Your task to perform on an android device: Open the calendar and show me this week's events? Image 0: 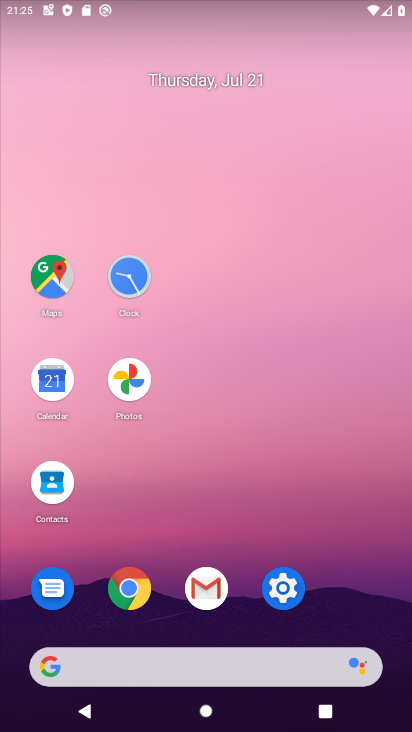
Step 0: click (49, 382)
Your task to perform on an android device: Open the calendar and show me this week's events? Image 1: 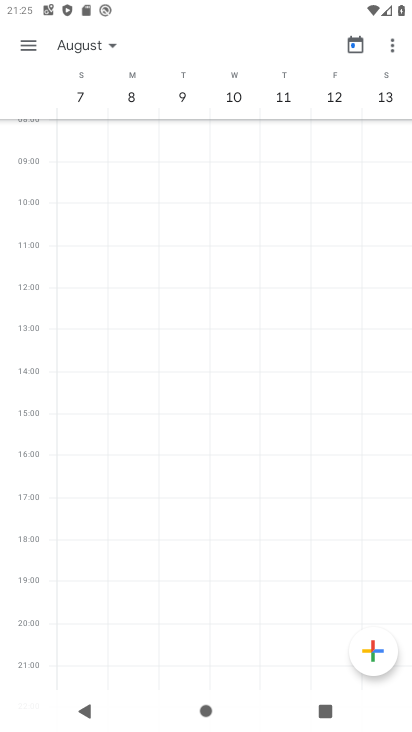
Step 1: click (25, 41)
Your task to perform on an android device: Open the calendar and show me this week's events? Image 2: 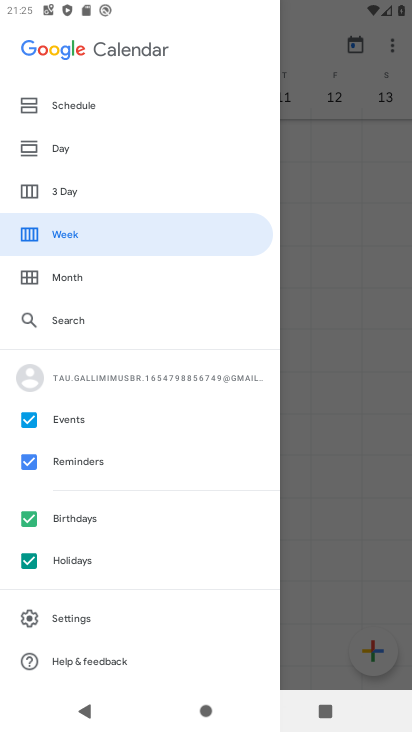
Step 2: click (76, 243)
Your task to perform on an android device: Open the calendar and show me this week's events? Image 3: 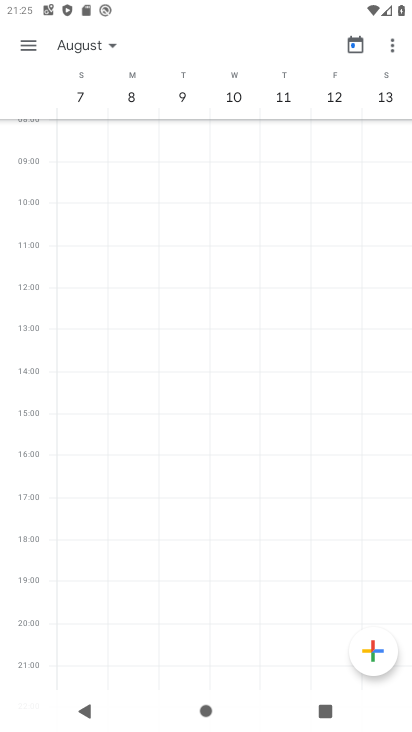
Step 3: click (112, 42)
Your task to perform on an android device: Open the calendar and show me this week's events? Image 4: 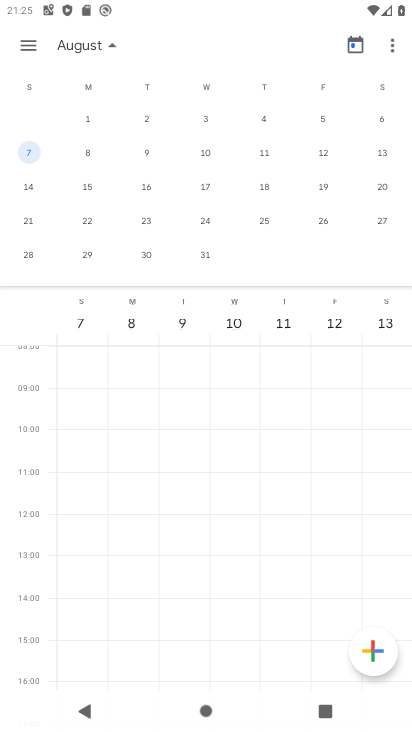
Step 4: drag from (37, 189) to (405, 171)
Your task to perform on an android device: Open the calendar and show me this week's events? Image 5: 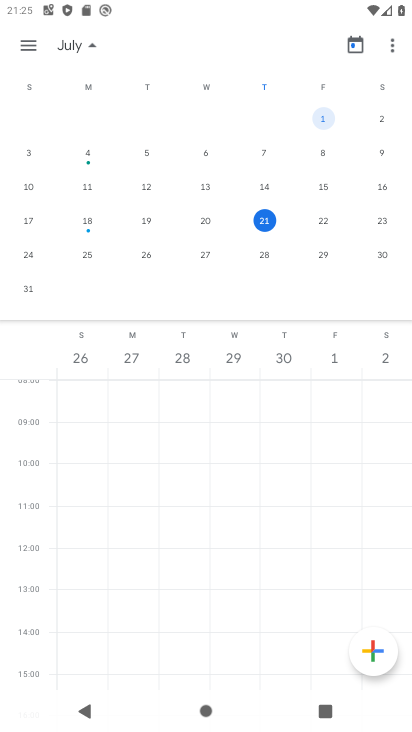
Step 5: click (264, 228)
Your task to perform on an android device: Open the calendar and show me this week's events? Image 6: 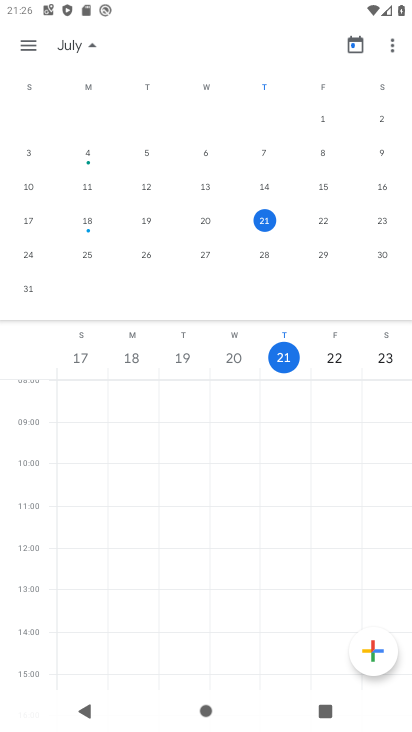
Step 6: task complete